Your task to perform on an android device: Go to wifi settings Image 0: 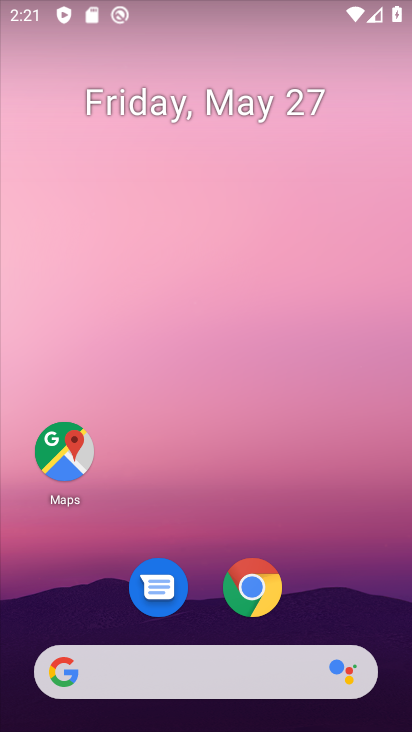
Step 0: drag from (199, 456) to (199, 135)
Your task to perform on an android device: Go to wifi settings Image 1: 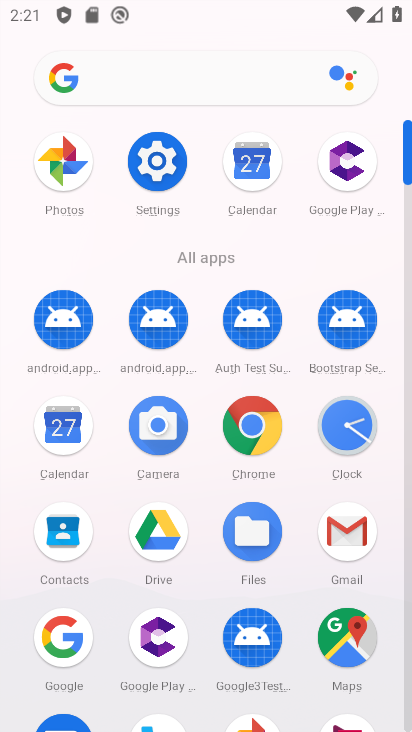
Step 1: click (172, 177)
Your task to perform on an android device: Go to wifi settings Image 2: 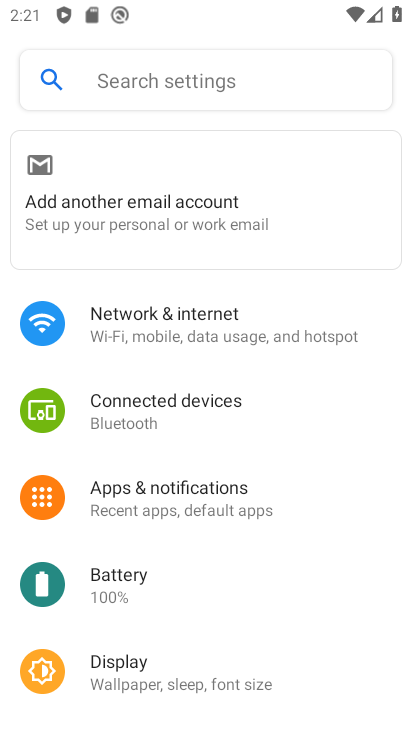
Step 2: click (145, 313)
Your task to perform on an android device: Go to wifi settings Image 3: 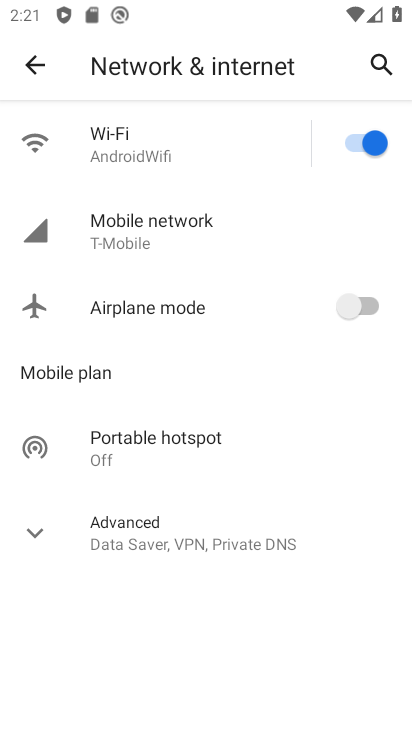
Step 3: click (118, 141)
Your task to perform on an android device: Go to wifi settings Image 4: 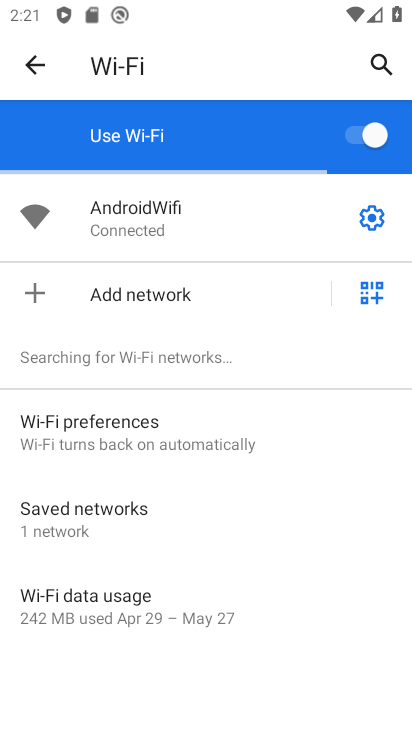
Step 4: task complete